Your task to perform on an android device: empty trash in google photos Image 0: 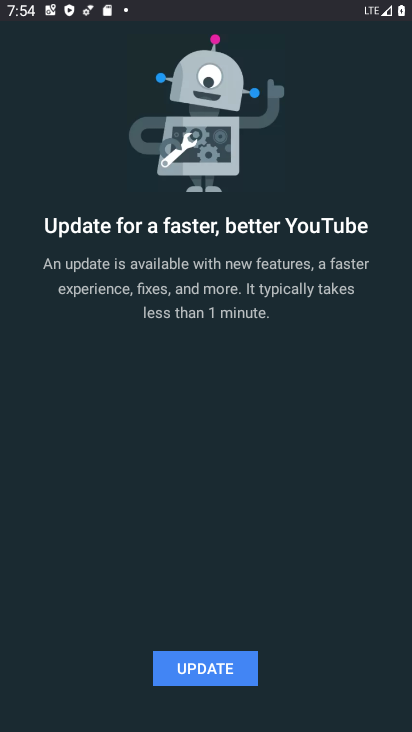
Step 0: press home button
Your task to perform on an android device: empty trash in google photos Image 1: 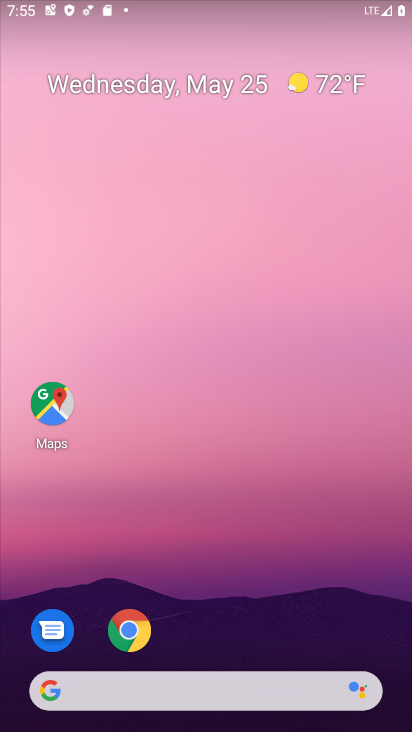
Step 1: drag from (197, 647) to (203, 213)
Your task to perform on an android device: empty trash in google photos Image 2: 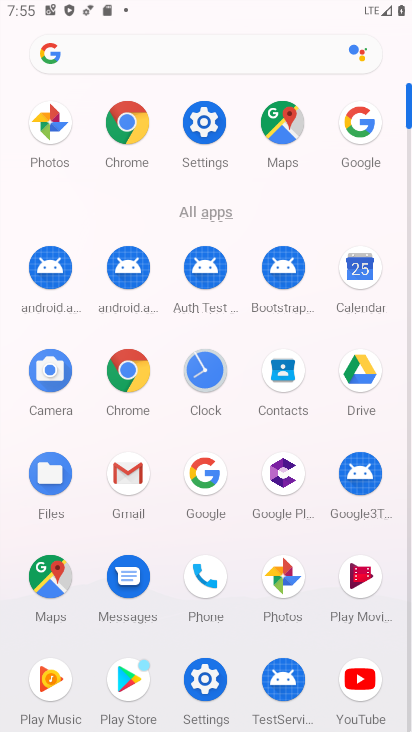
Step 2: click (42, 143)
Your task to perform on an android device: empty trash in google photos Image 3: 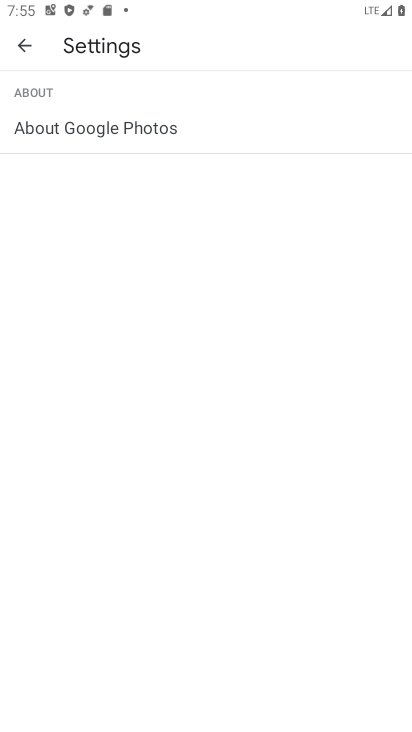
Step 3: click (29, 48)
Your task to perform on an android device: empty trash in google photos Image 4: 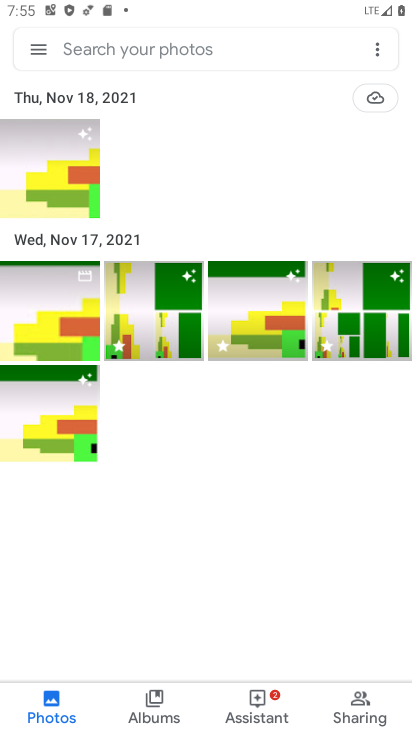
Step 4: click (29, 48)
Your task to perform on an android device: empty trash in google photos Image 5: 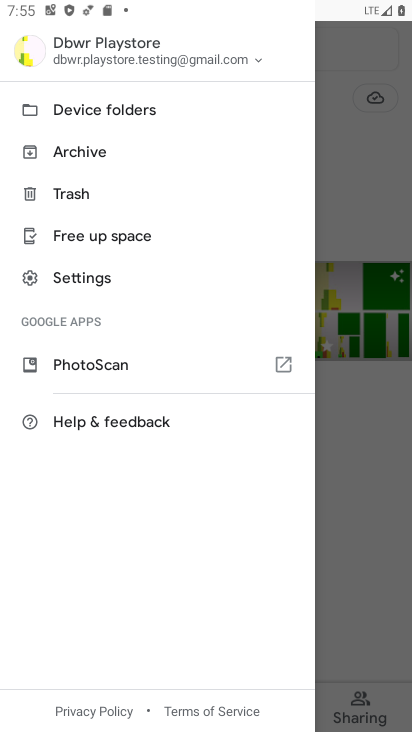
Step 5: click (100, 188)
Your task to perform on an android device: empty trash in google photos Image 6: 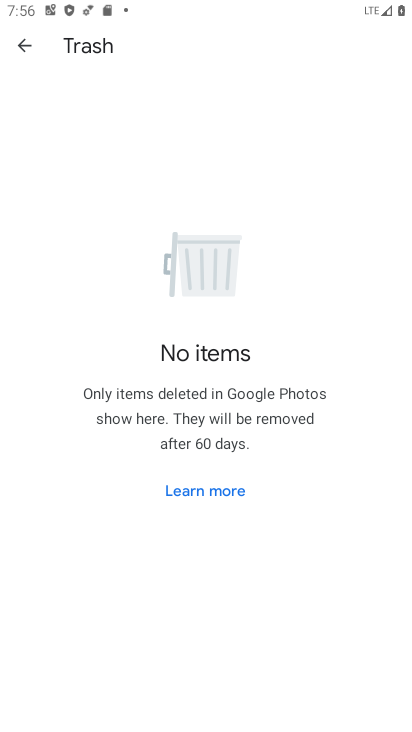
Step 6: task complete